Your task to perform on an android device: toggle sleep mode Image 0: 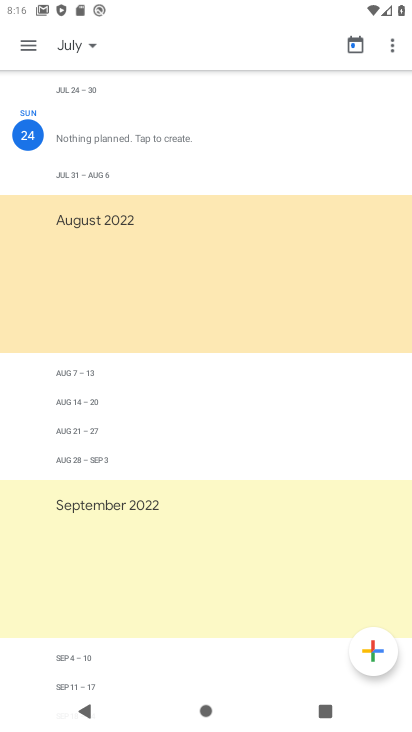
Step 0: press home button
Your task to perform on an android device: toggle sleep mode Image 1: 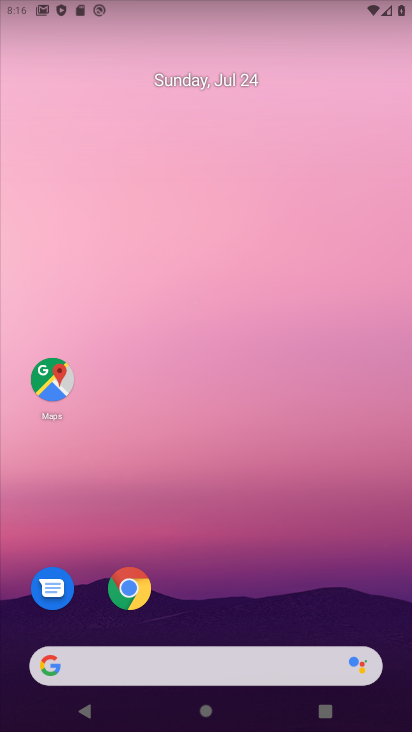
Step 1: drag from (225, 303) to (237, 212)
Your task to perform on an android device: toggle sleep mode Image 2: 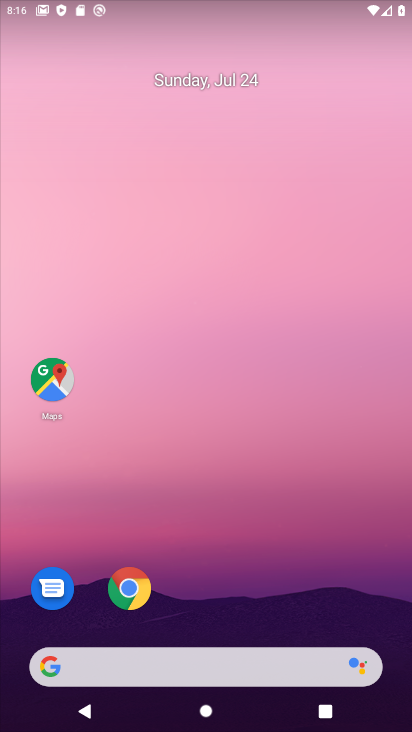
Step 2: drag from (228, 588) to (212, 212)
Your task to perform on an android device: toggle sleep mode Image 3: 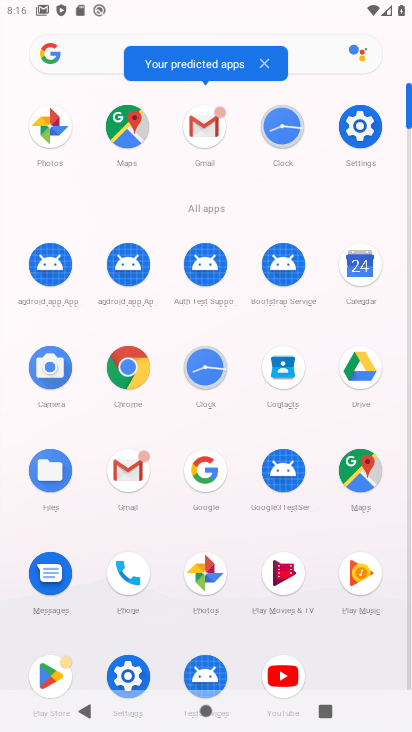
Step 3: click (346, 125)
Your task to perform on an android device: toggle sleep mode Image 4: 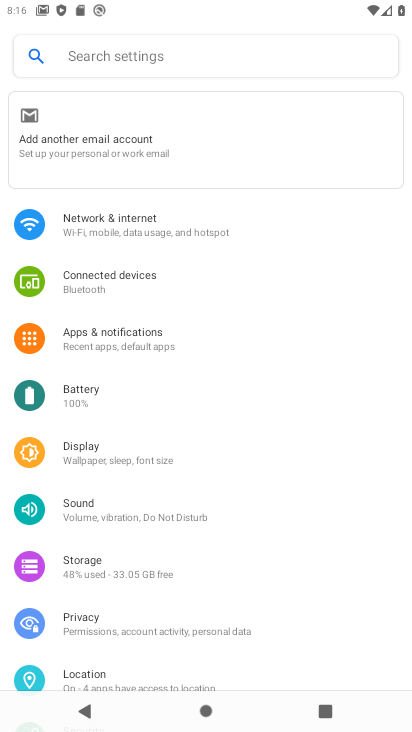
Step 4: task complete